Your task to perform on an android device: turn on javascript in the chrome app Image 0: 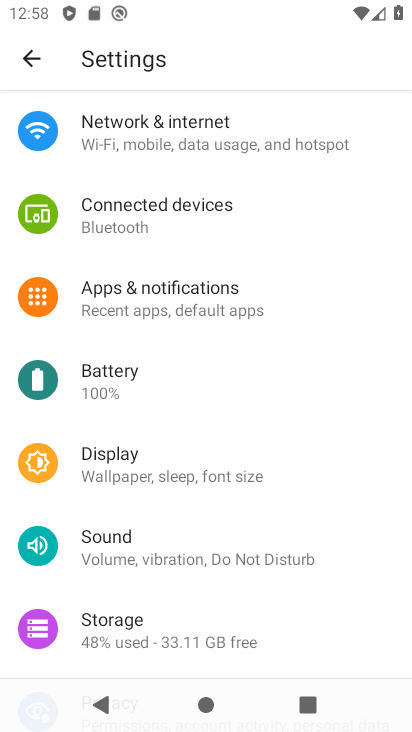
Step 0: press home button
Your task to perform on an android device: turn on javascript in the chrome app Image 1: 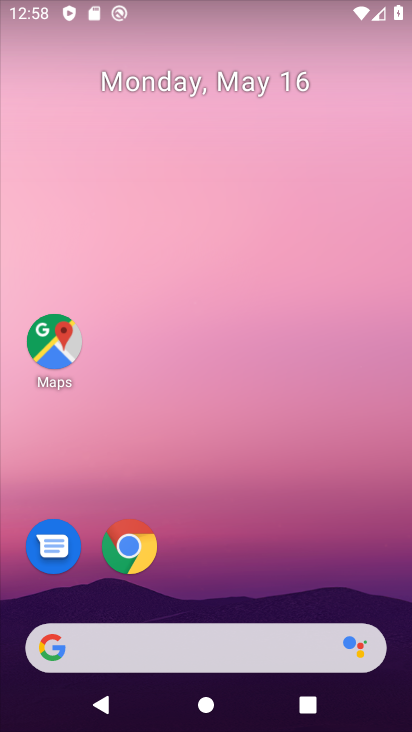
Step 1: click (125, 545)
Your task to perform on an android device: turn on javascript in the chrome app Image 2: 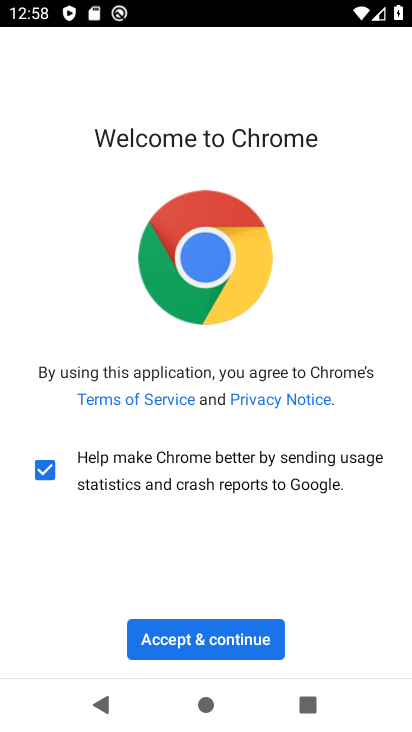
Step 2: click (206, 635)
Your task to perform on an android device: turn on javascript in the chrome app Image 3: 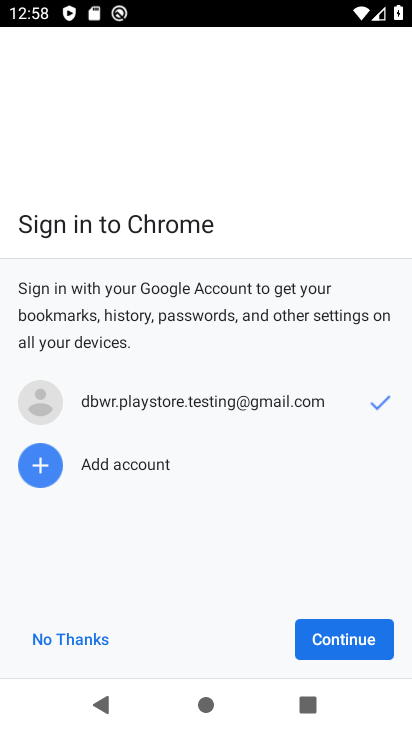
Step 3: click (314, 631)
Your task to perform on an android device: turn on javascript in the chrome app Image 4: 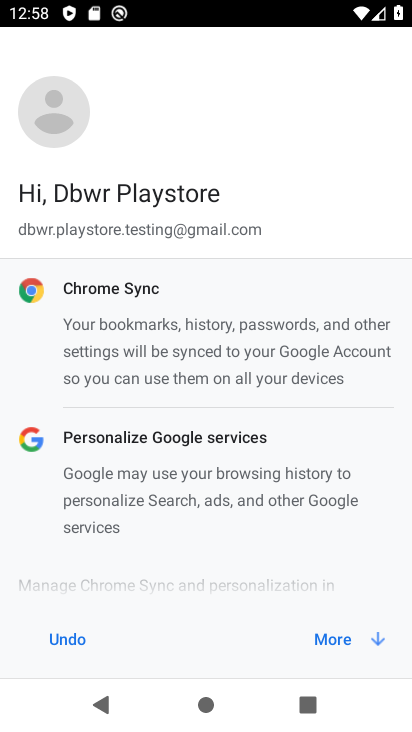
Step 4: click (342, 641)
Your task to perform on an android device: turn on javascript in the chrome app Image 5: 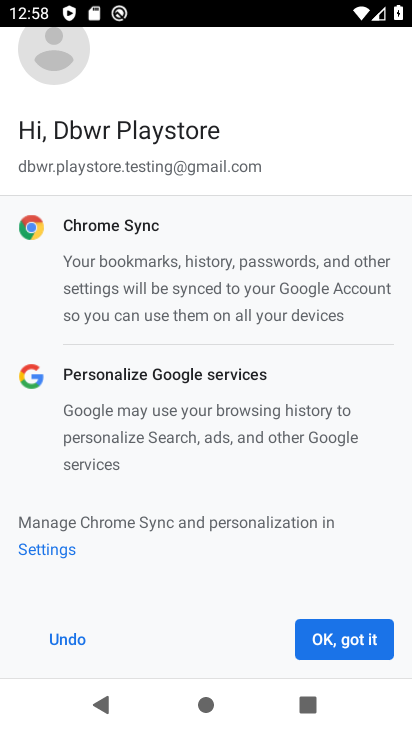
Step 5: click (343, 638)
Your task to perform on an android device: turn on javascript in the chrome app Image 6: 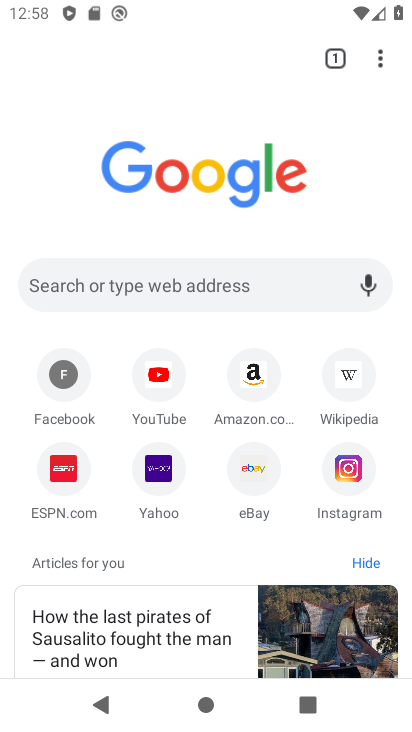
Step 6: click (379, 53)
Your task to perform on an android device: turn on javascript in the chrome app Image 7: 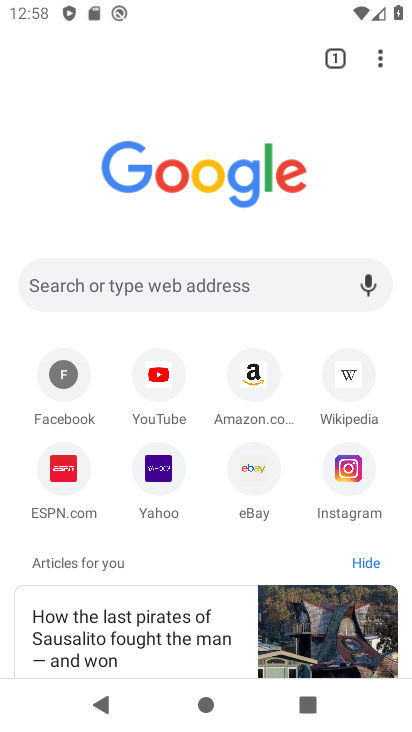
Step 7: click (378, 57)
Your task to perform on an android device: turn on javascript in the chrome app Image 8: 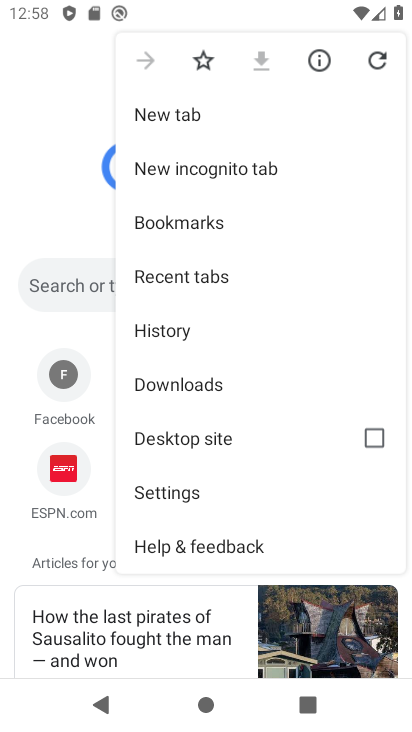
Step 8: click (198, 503)
Your task to perform on an android device: turn on javascript in the chrome app Image 9: 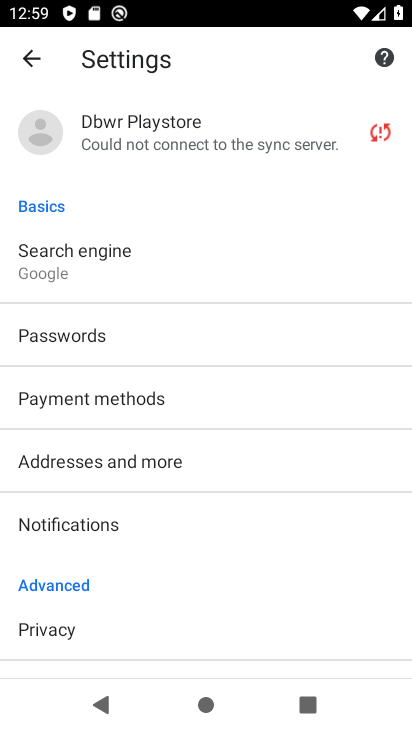
Step 9: drag from (161, 539) to (248, 275)
Your task to perform on an android device: turn on javascript in the chrome app Image 10: 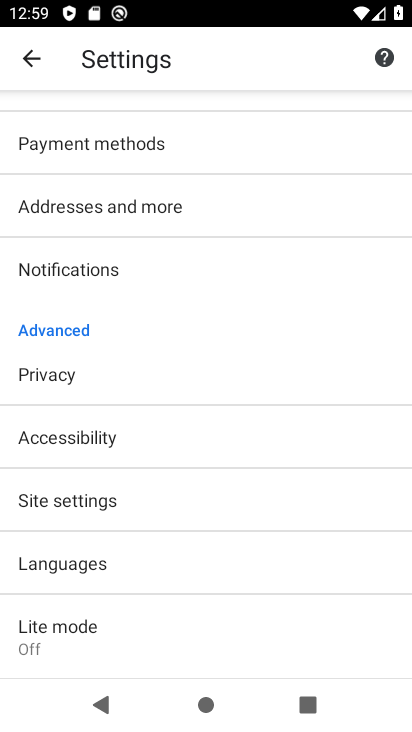
Step 10: click (75, 502)
Your task to perform on an android device: turn on javascript in the chrome app Image 11: 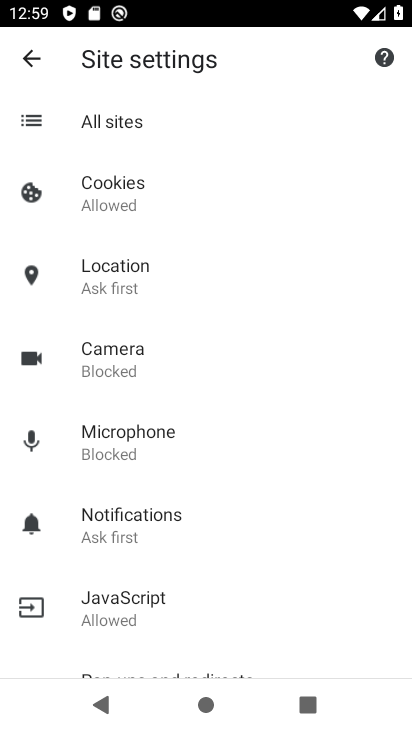
Step 11: click (134, 618)
Your task to perform on an android device: turn on javascript in the chrome app Image 12: 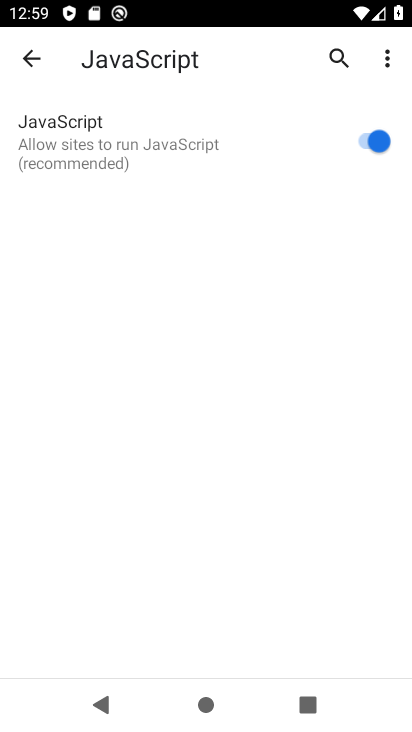
Step 12: task complete